Your task to perform on an android device: allow cookies in the chrome app Image 0: 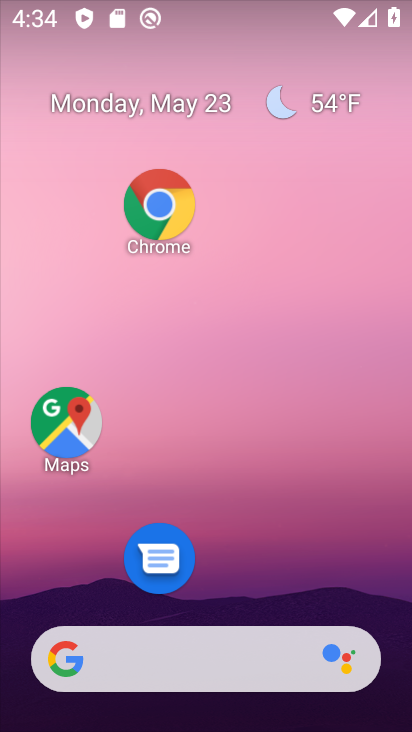
Step 0: drag from (354, 713) to (282, 360)
Your task to perform on an android device: allow cookies in the chrome app Image 1: 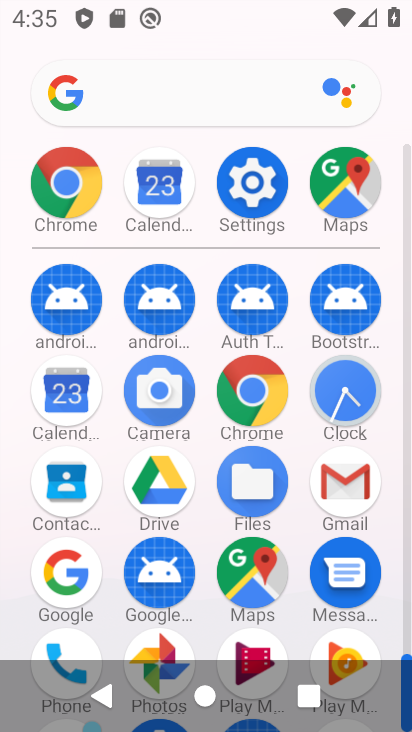
Step 1: drag from (342, 631) to (230, 71)
Your task to perform on an android device: allow cookies in the chrome app Image 2: 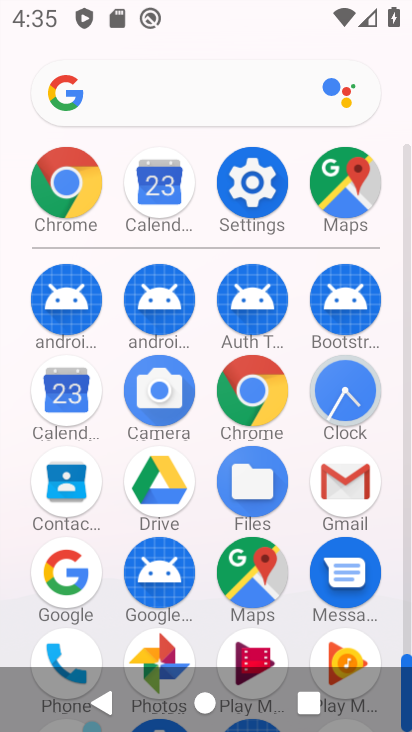
Step 2: drag from (275, 508) to (201, 108)
Your task to perform on an android device: allow cookies in the chrome app Image 3: 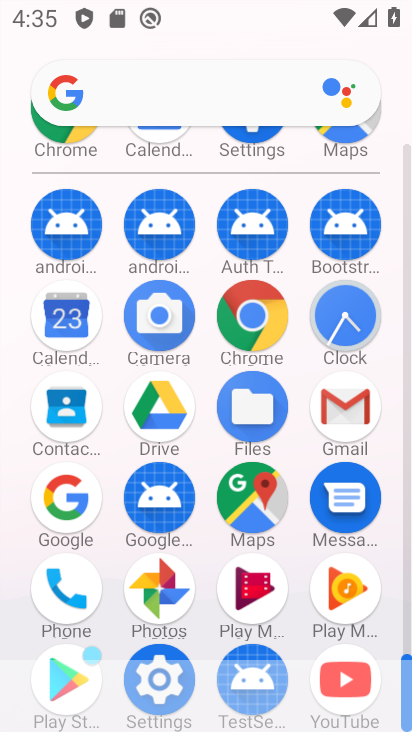
Step 3: click (242, 284)
Your task to perform on an android device: allow cookies in the chrome app Image 4: 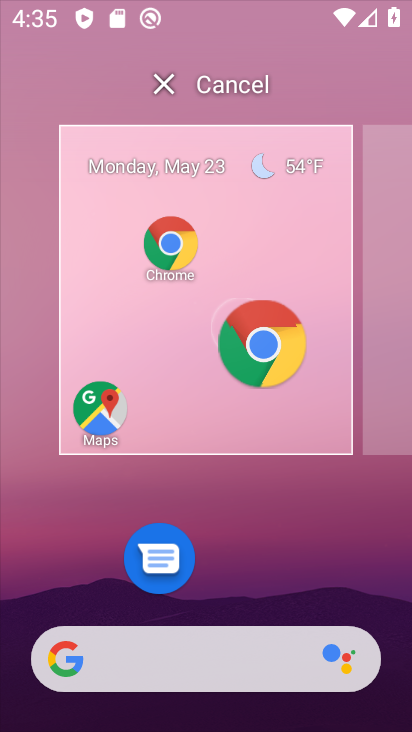
Step 4: click (250, 312)
Your task to perform on an android device: allow cookies in the chrome app Image 5: 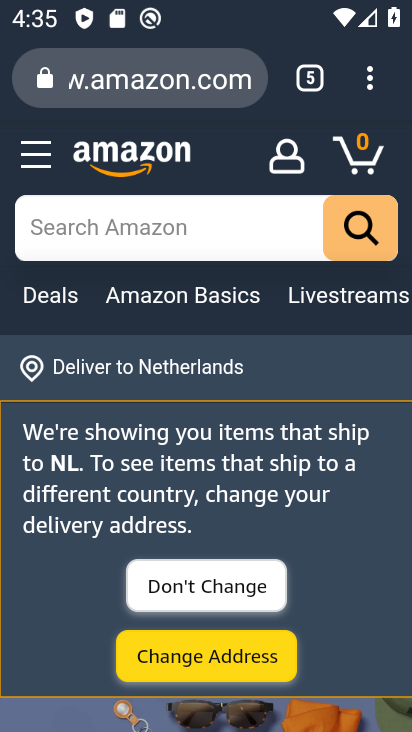
Step 5: click (360, 86)
Your task to perform on an android device: allow cookies in the chrome app Image 6: 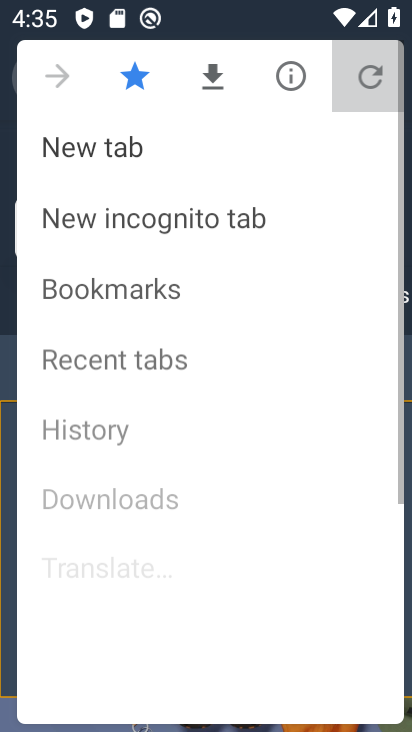
Step 6: click (366, 90)
Your task to perform on an android device: allow cookies in the chrome app Image 7: 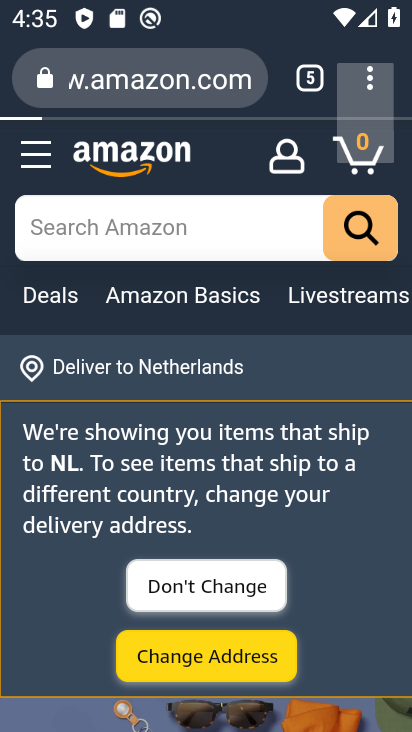
Step 7: click (366, 90)
Your task to perform on an android device: allow cookies in the chrome app Image 8: 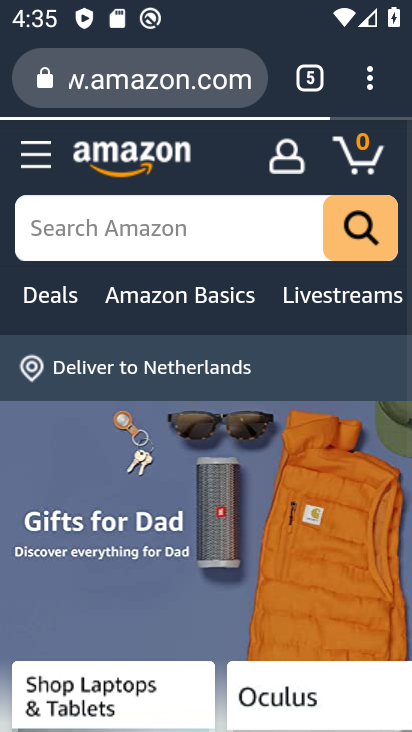
Step 8: drag from (370, 87) to (43, 630)
Your task to perform on an android device: allow cookies in the chrome app Image 9: 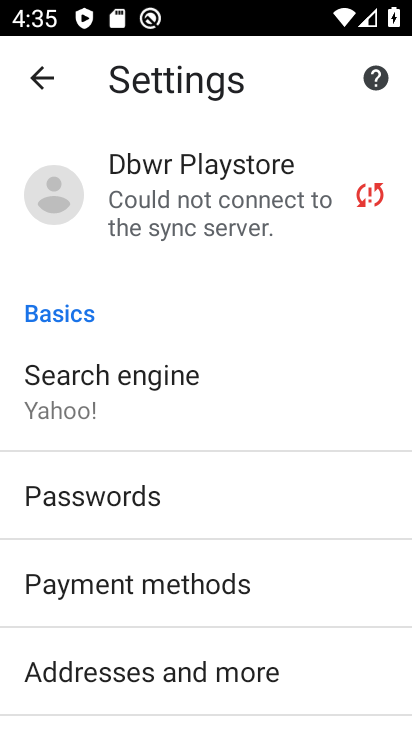
Step 9: click (36, 74)
Your task to perform on an android device: allow cookies in the chrome app Image 10: 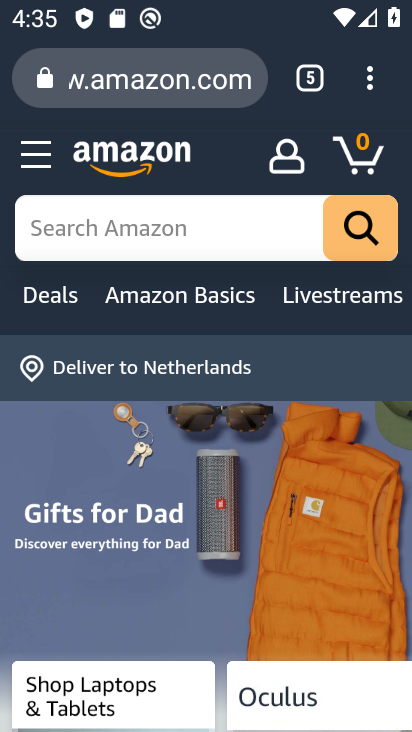
Step 10: drag from (368, 80) to (83, 674)
Your task to perform on an android device: allow cookies in the chrome app Image 11: 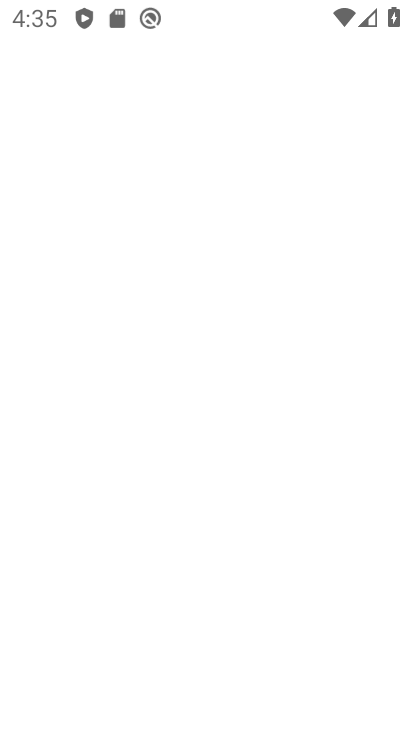
Step 11: press back button
Your task to perform on an android device: allow cookies in the chrome app Image 12: 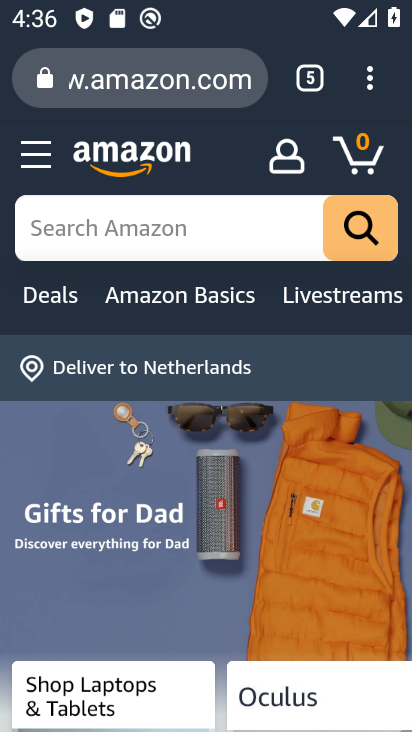
Step 12: click (369, 90)
Your task to perform on an android device: allow cookies in the chrome app Image 13: 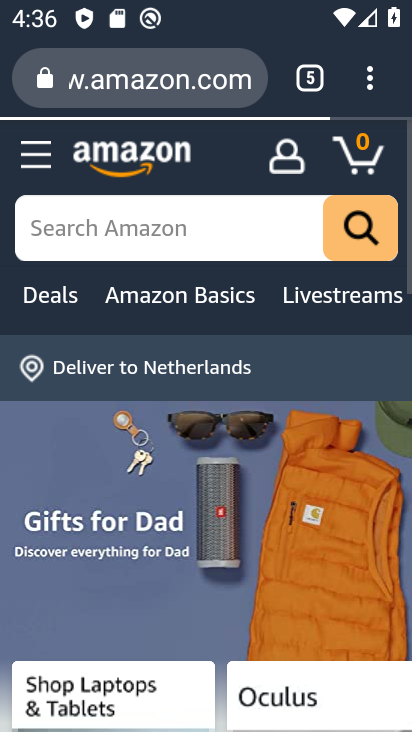
Step 13: drag from (235, 586) to (221, 197)
Your task to perform on an android device: allow cookies in the chrome app Image 14: 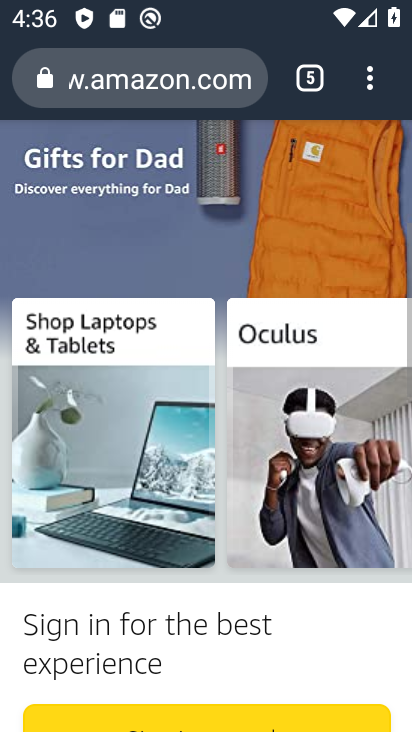
Step 14: drag from (288, 515) to (239, 161)
Your task to perform on an android device: allow cookies in the chrome app Image 15: 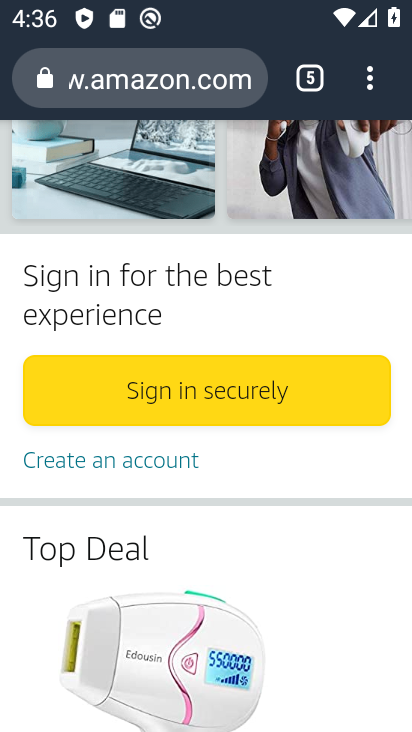
Step 15: click (363, 78)
Your task to perform on an android device: allow cookies in the chrome app Image 16: 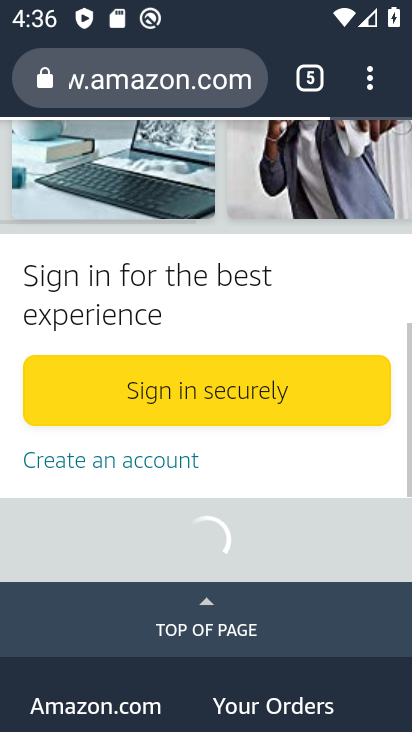
Step 16: drag from (237, 566) to (259, 141)
Your task to perform on an android device: allow cookies in the chrome app Image 17: 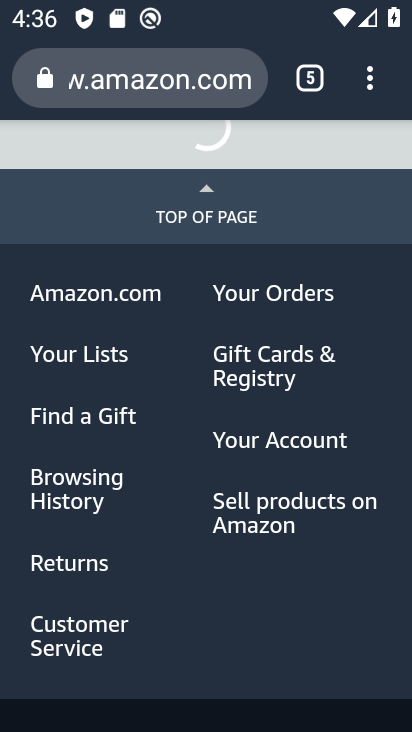
Step 17: click (367, 80)
Your task to perform on an android device: allow cookies in the chrome app Image 18: 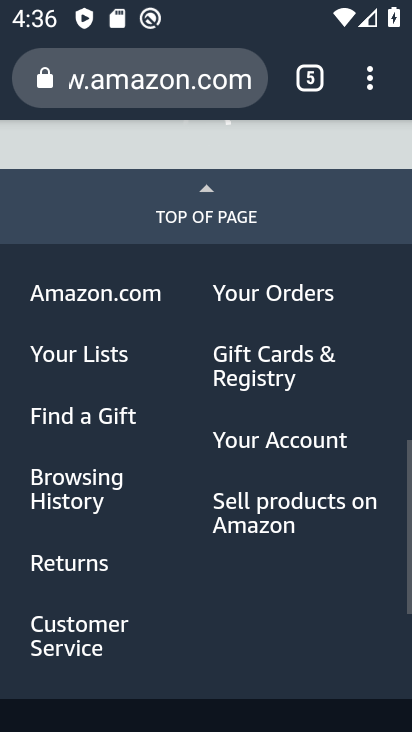
Step 18: click (367, 87)
Your task to perform on an android device: allow cookies in the chrome app Image 19: 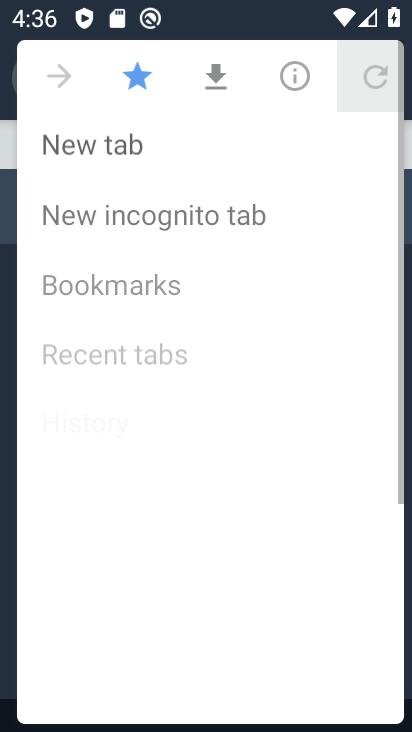
Step 19: drag from (239, 568) to (228, 90)
Your task to perform on an android device: allow cookies in the chrome app Image 20: 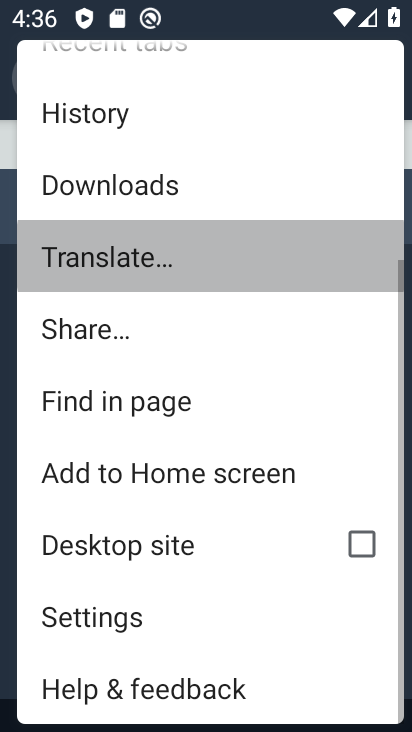
Step 20: click (288, 48)
Your task to perform on an android device: allow cookies in the chrome app Image 21: 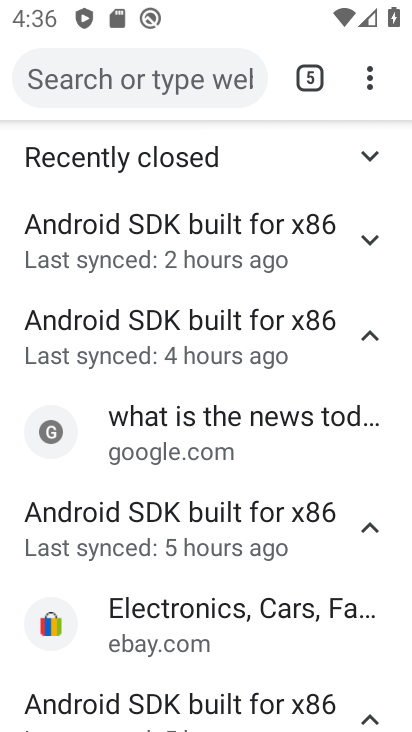
Step 21: click (365, 66)
Your task to perform on an android device: allow cookies in the chrome app Image 22: 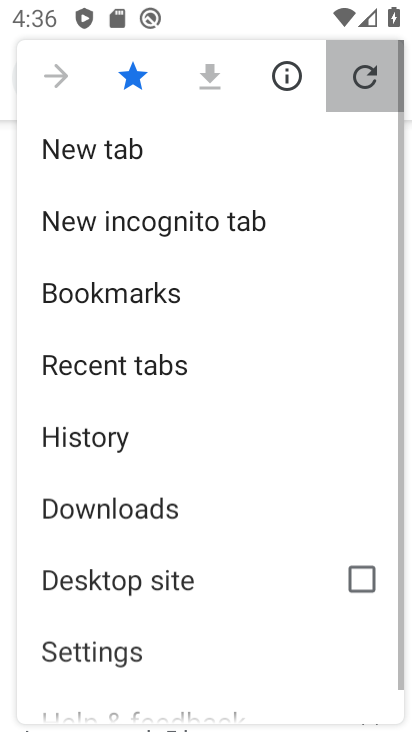
Step 22: click (371, 73)
Your task to perform on an android device: allow cookies in the chrome app Image 23: 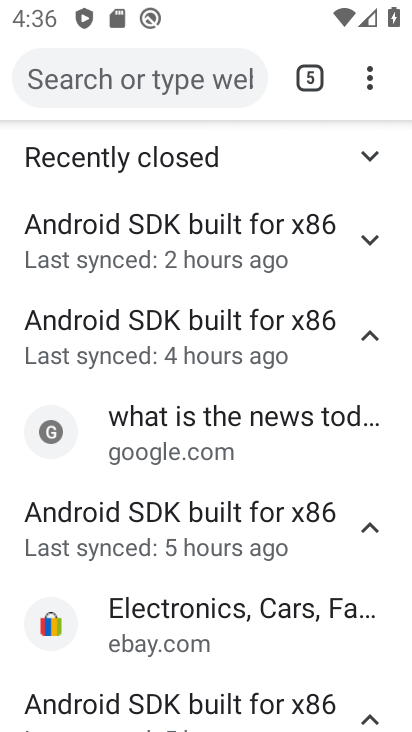
Step 23: press back button
Your task to perform on an android device: allow cookies in the chrome app Image 24: 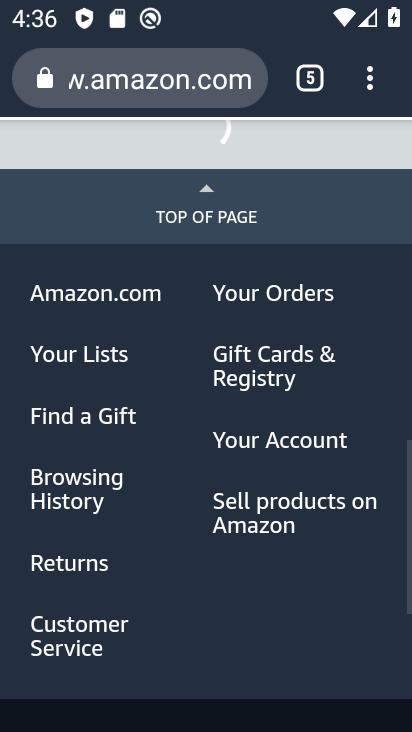
Step 24: drag from (364, 88) to (266, 564)
Your task to perform on an android device: allow cookies in the chrome app Image 25: 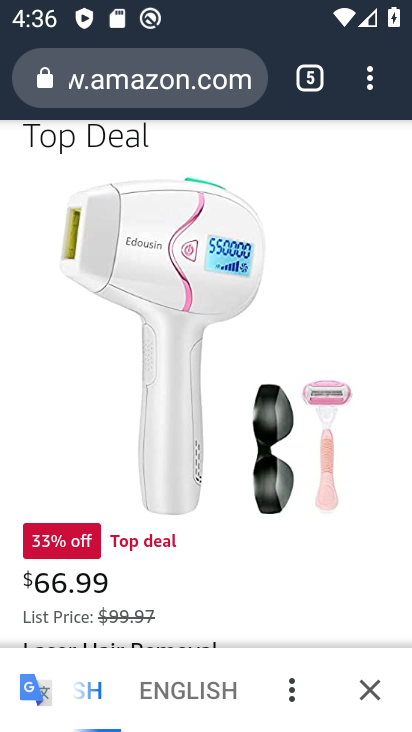
Step 25: click (378, 91)
Your task to perform on an android device: allow cookies in the chrome app Image 26: 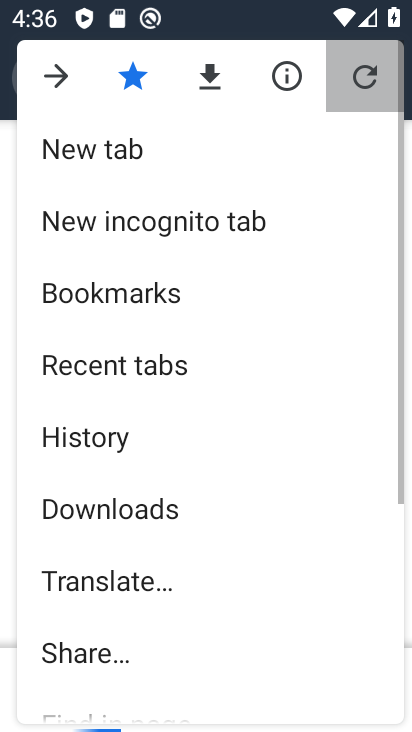
Step 26: drag from (348, 114) to (96, 626)
Your task to perform on an android device: allow cookies in the chrome app Image 27: 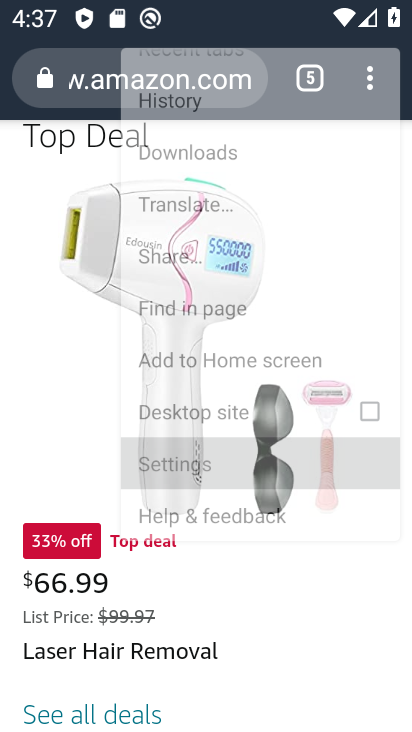
Step 27: click (95, 625)
Your task to perform on an android device: allow cookies in the chrome app Image 28: 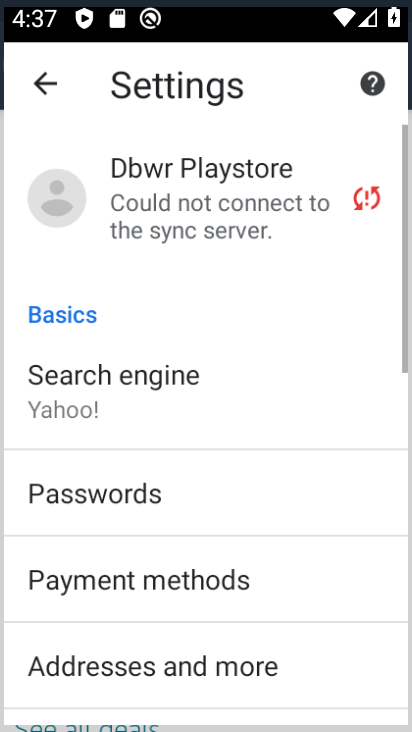
Step 28: click (96, 616)
Your task to perform on an android device: allow cookies in the chrome app Image 29: 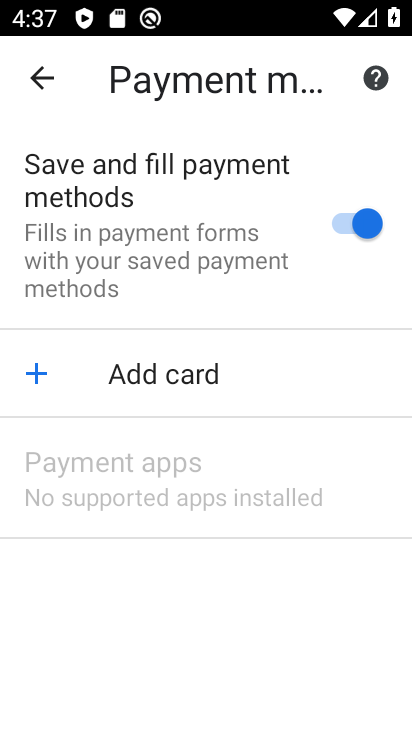
Step 29: click (45, 74)
Your task to perform on an android device: allow cookies in the chrome app Image 30: 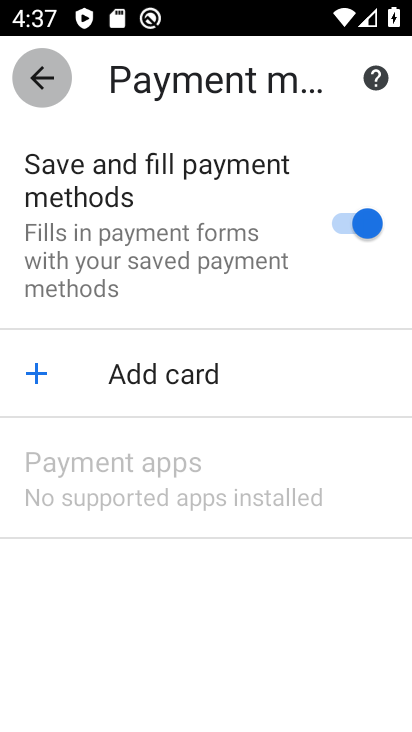
Step 30: click (45, 74)
Your task to perform on an android device: allow cookies in the chrome app Image 31: 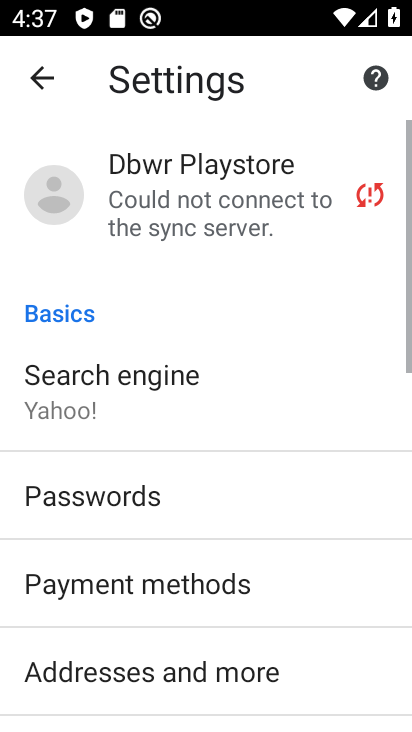
Step 31: click (44, 69)
Your task to perform on an android device: allow cookies in the chrome app Image 32: 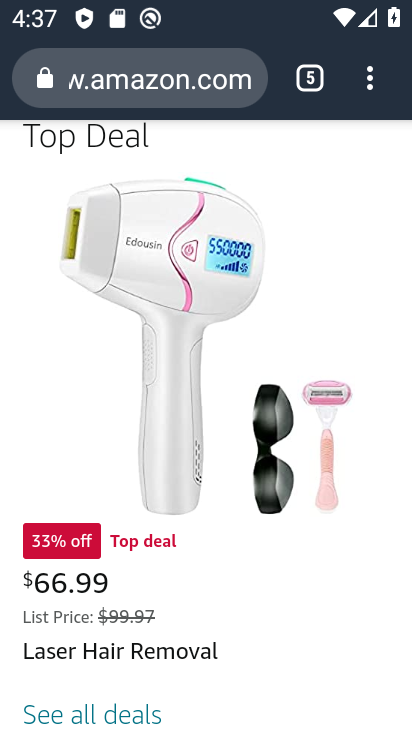
Step 32: task complete